Your task to perform on an android device: see tabs open on other devices in the chrome app Image 0: 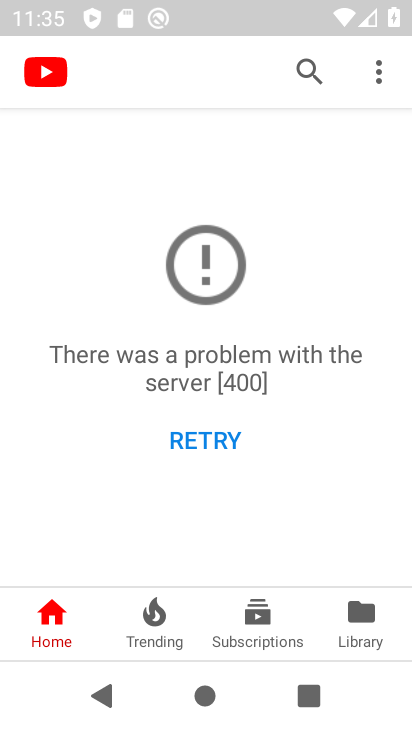
Step 0: press home button
Your task to perform on an android device: see tabs open on other devices in the chrome app Image 1: 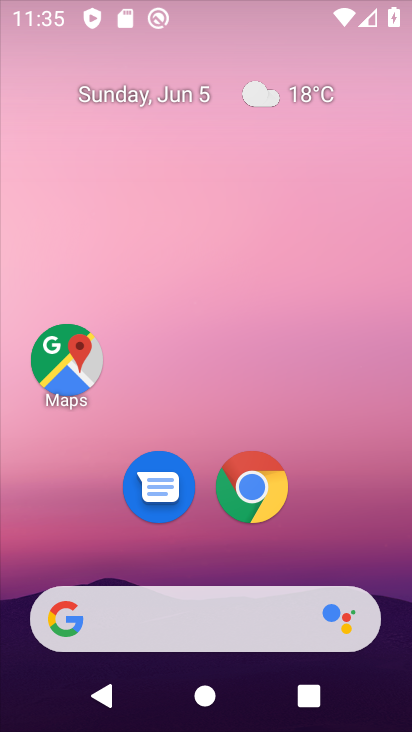
Step 1: drag from (350, 445) to (348, 210)
Your task to perform on an android device: see tabs open on other devices in the chrome app Image 2: 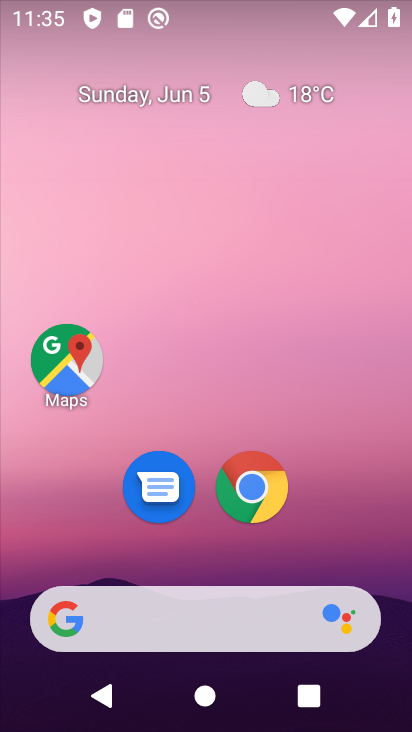
Step 2: drag from (333, 537) to (330, 202)
Your task to perform on an android device: see tabs open on other devices in the chrome app Image 3: 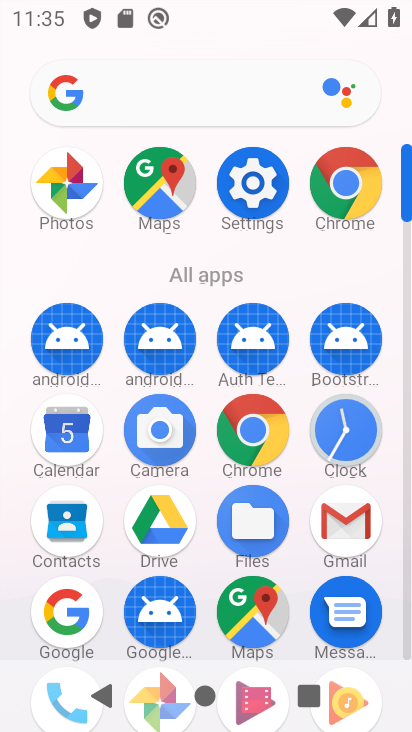
Step 3: click (245, 438)
Your task to perform on an android device: see tabs open on other devices in the chrome app Image 4: 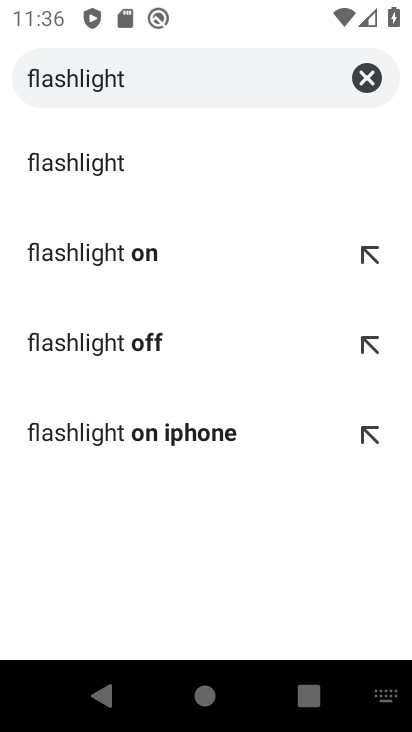
Step 4: click (355, 78)
Your task to perform on an android device: see tabs open on other devices in the chrome app Image 5: 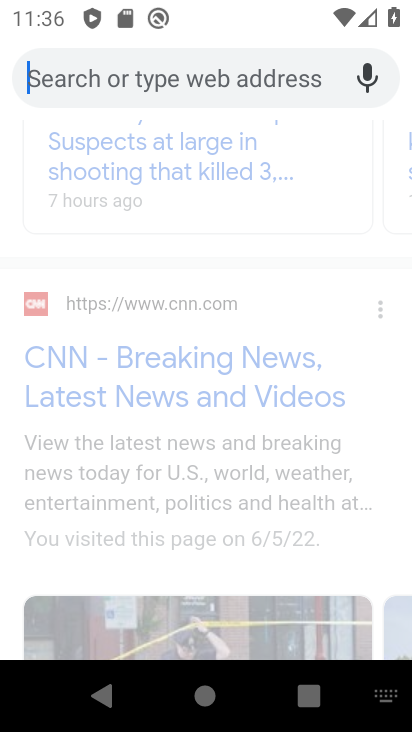
Step 5: press back button
Your task to perform on an android device: see tabs open on other devices in the chrome app Image 6: 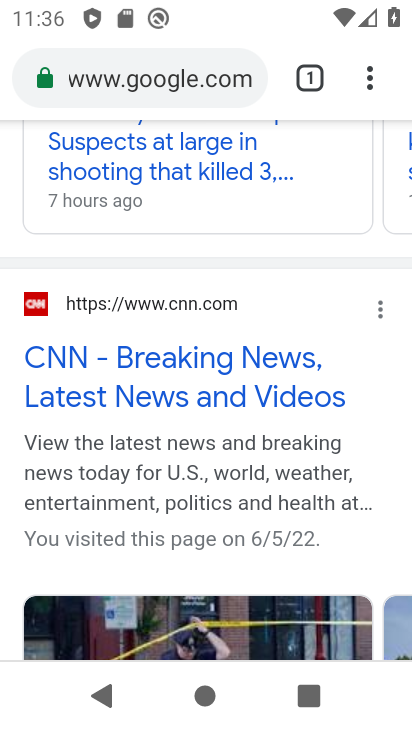
Step 6: click (300, 86)
Your task to perform on an android device: see tabs open on other devices in the chrome app Image 7: 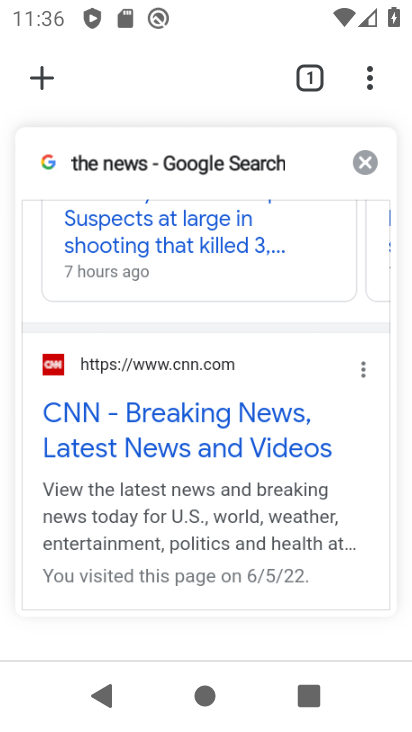
Step 7: task complete